Your task to perform on an android device: Open calendar and show me the third week of next month Image 0: 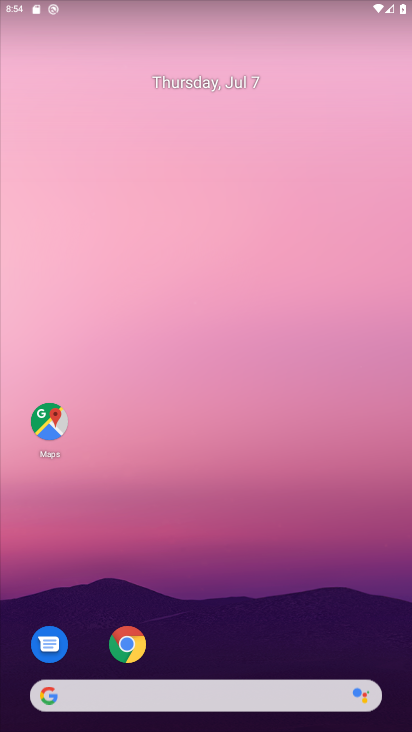
Step 0: drag from (298, 607) to (243, 77)
Your task to perform on an android device: Open calendar and show me the third week of next month Image 1: 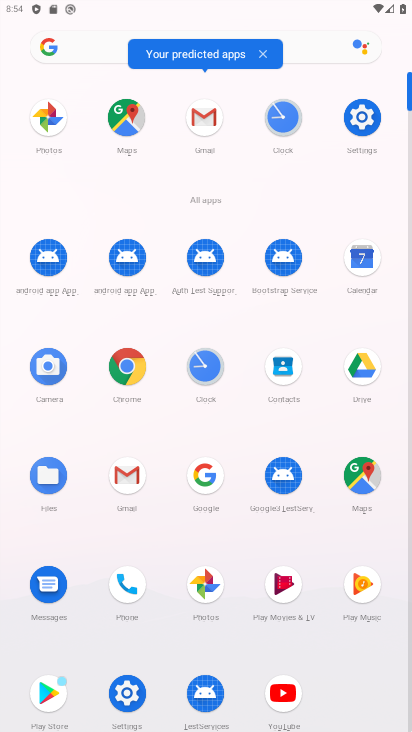
Step 1: click (368, 264)
Your task to perform on an android device: Open calendar and show me the third week of next month Image 2: 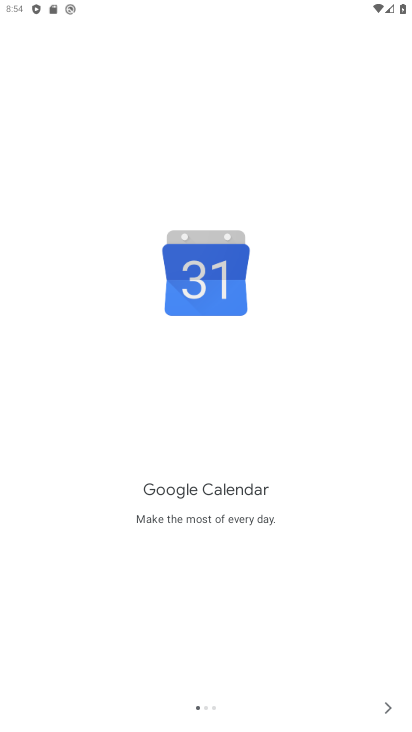
Step 2: click (382, 703)
Your task to perform on an android device: Open calendar and show me the third week of next month Image 3: 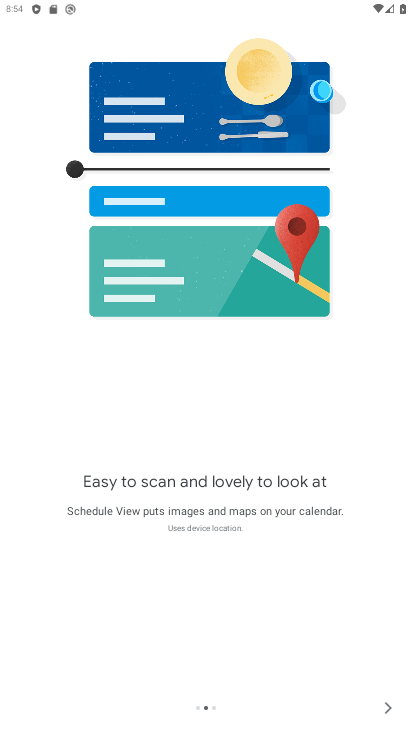
Step 3: click (383, 701)
Your task to perform on an android device: Open calendar and show me the third week of next month Image 4: 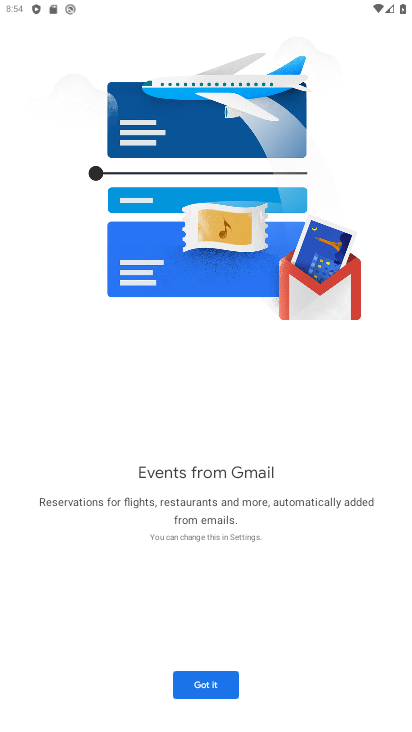
Step 4: click (211, 680)
Your task to perform on an android device: Open calendar and show me the third week of next month Image 5: 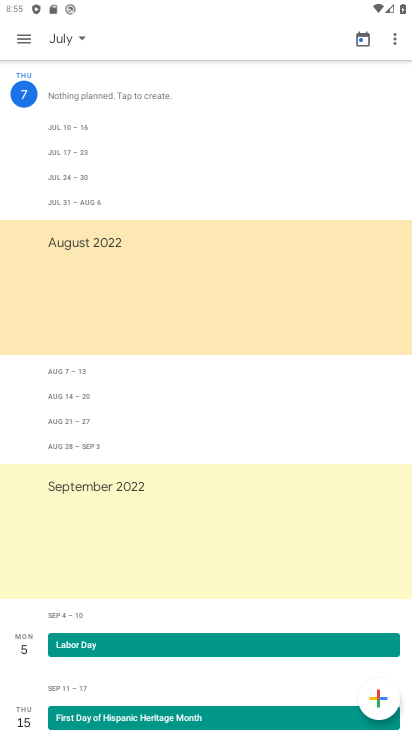
Step 5: click (65, 36)
Your task to perform on an android device: Open calendar and show me the third week of next month Image 6: 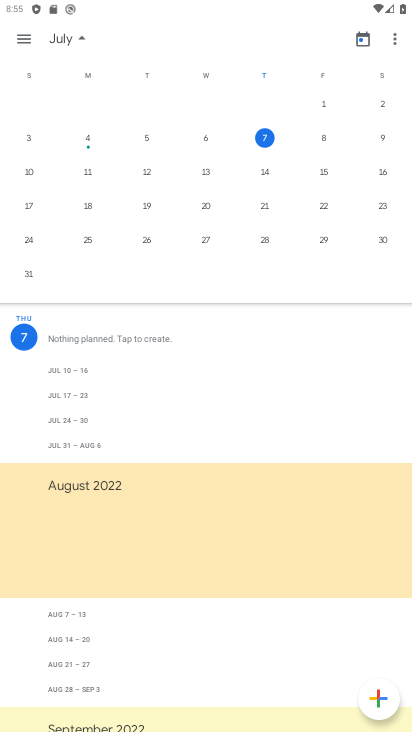
Step 6: drag from (384, 196) to (2, 163)
Your task to perform on an android device: Open calendar and show me the third week of next month Image 7: 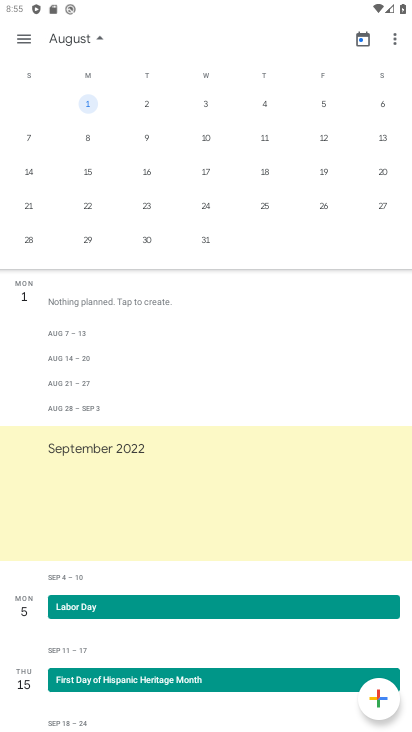
Step 7: click (33, 177)
Your task to perform on an android device: Open calendar and show me the third week of next month Image 8: 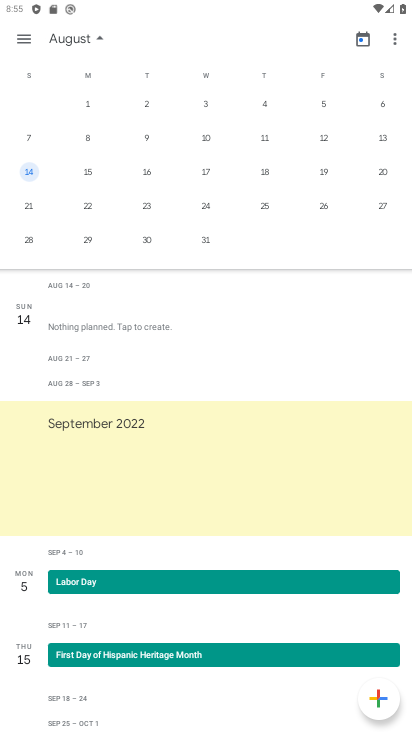
Step 8: click (25, 43)
Your task to perform on an android device: Open calendar and show me the third week of next month Image 9: 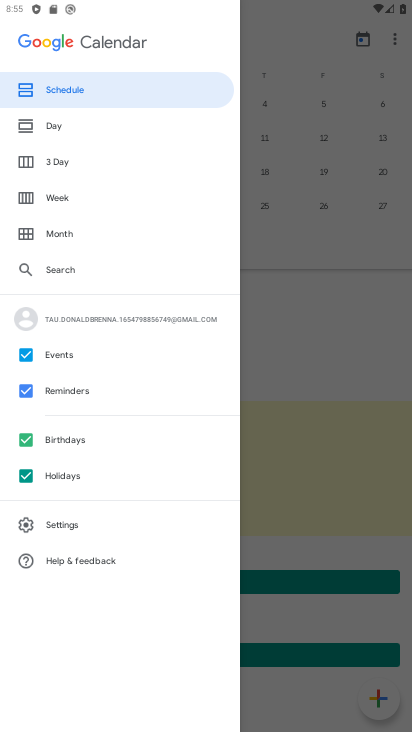
Step 9: click (63, 193)
Your task to perform on an android device: Open calendar and show me the third week of next month Image 10: 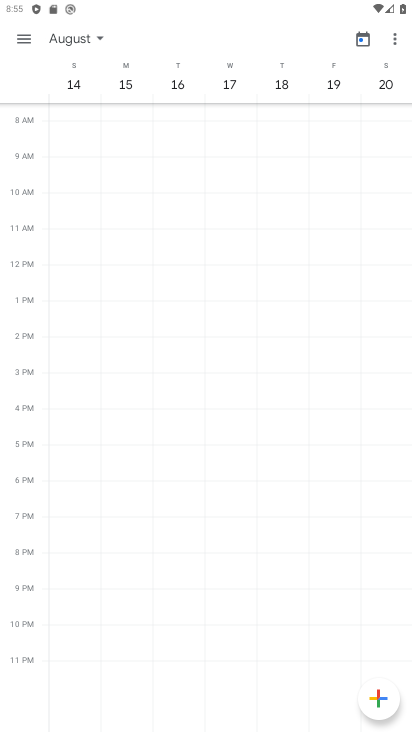
Step 10: task complete